Your task to perform on an android device: Search for vegetarian restaurants on Maps Image 0: 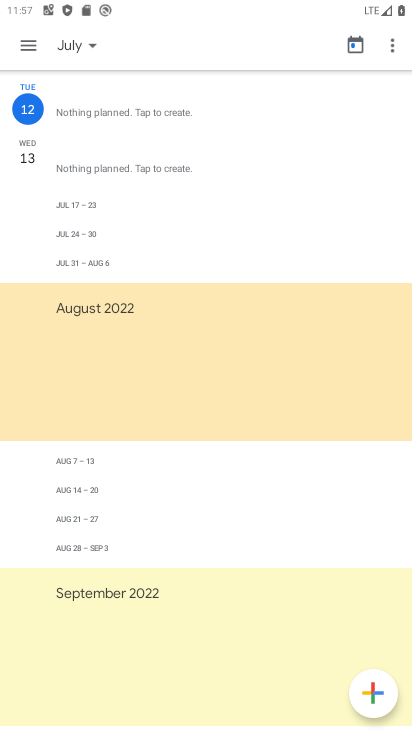
Step 0: press home button
Your task to perform on an android device: Search for vegetarian restaurants on Maps Image 1: 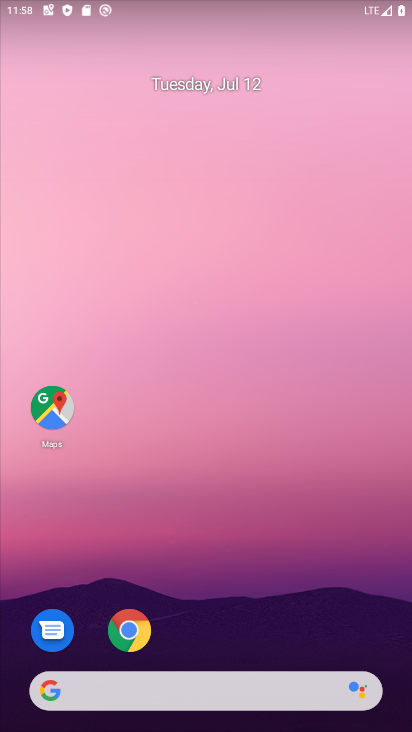
Step 1: drag from (387, 689) to (70, 78)
Your task to perform on an android device: Search for vegetarian restaurants on Maps Image 2: 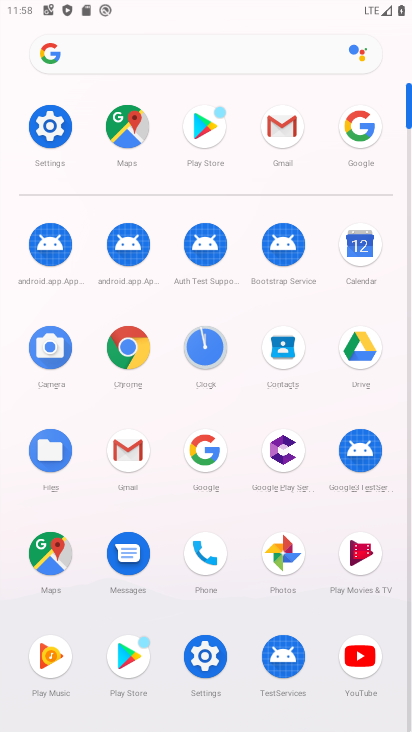
Step 2: click (54, 543)
Your task to perform on an android device: Search for vegetarian restaurants on Maps Image 3: 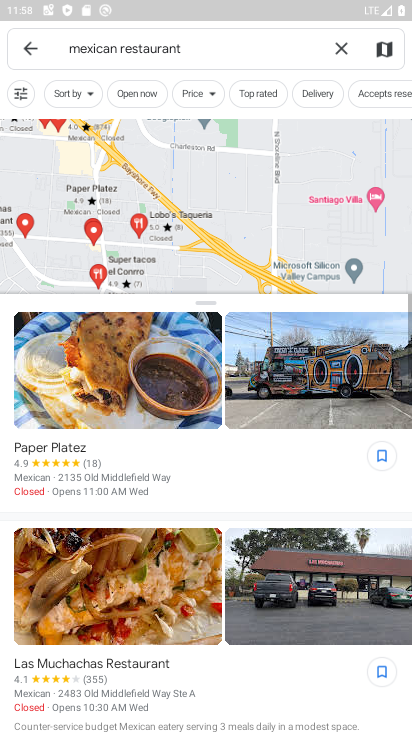
Step 3: click (342, 38)
Your task to perform on an android device: Search for vegetarian restaurants on Maps Image 4: 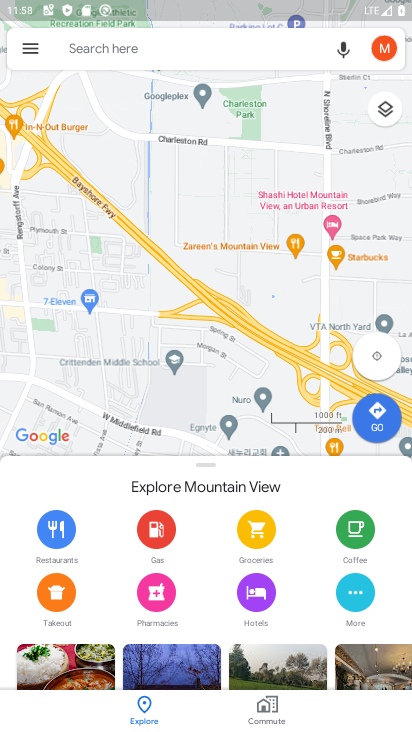
Step 4: click (168, 51)
Your task to perform on an android device: Search for vegetarian restaurants on Maps Image 5: 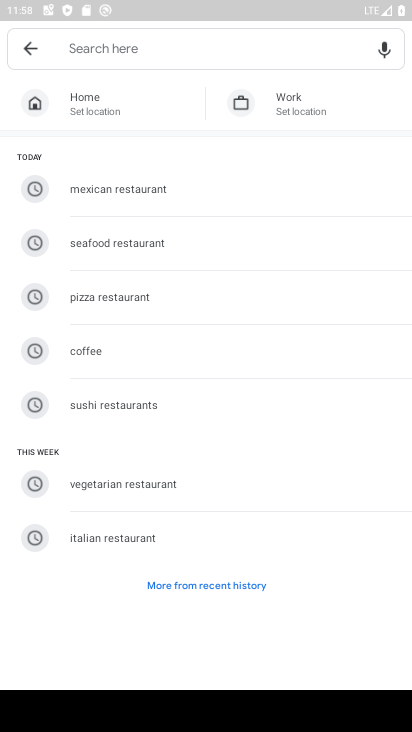
Step 5: click (110, 486)
Your task to perform on an android device: Search for vegetarian restaurants on Maps Image 6: 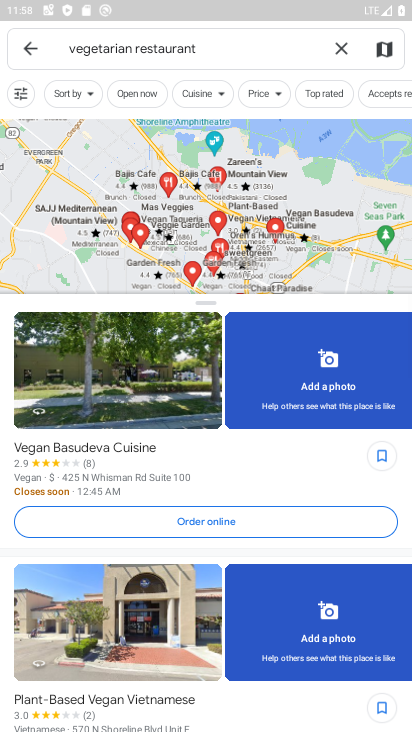
Step 6: task complete